Your task to perform on an android device: What's the news this month? Image 0: 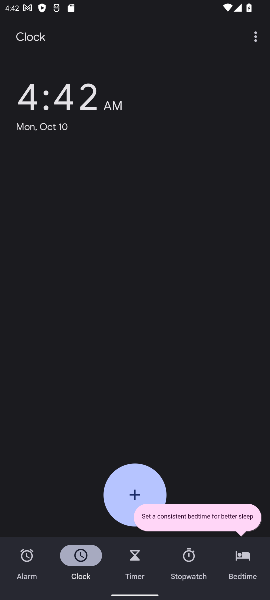
Step 0: press home button
Your task to perform on an android device: What's the news this month? Image 1: 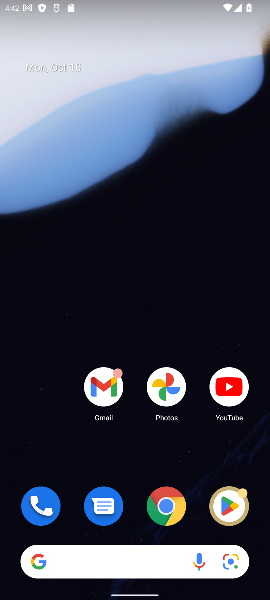
Step 1: drag from (145, 547) to (147, 176)
Your task to perform on an android device: What's the news this month? Image 2: 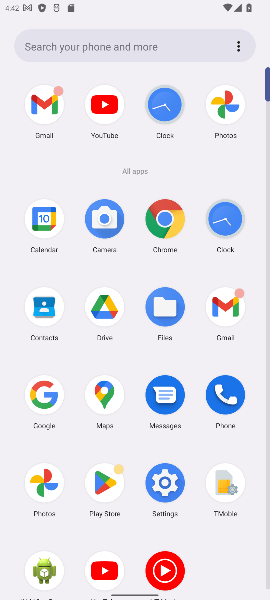
Step 2: click (47, 397)
Your task to perform on an android device: What's the news this month? Image 3: 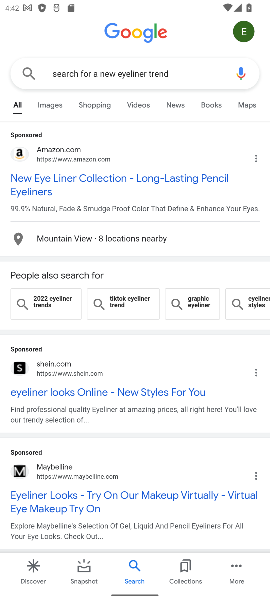
Step 3: click (163, 76)
Your task to perform on an android device: What's the news this month? Image 4: 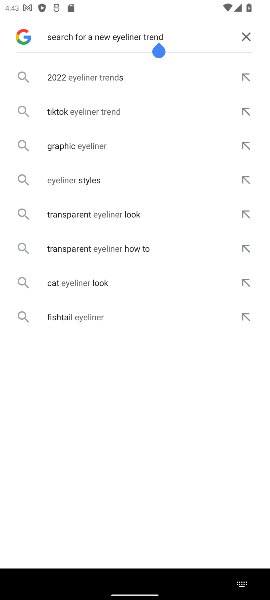
Step 4: click (247, 38)
Your task to perform on an android device: What's the news this month? Image 5: 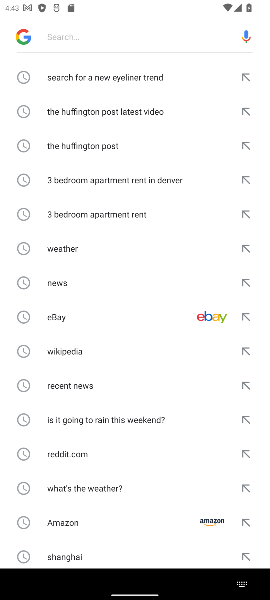
Step 5: type "What's the news this month?"
Your task to perform on an android device: What's the news this month? Image 6: 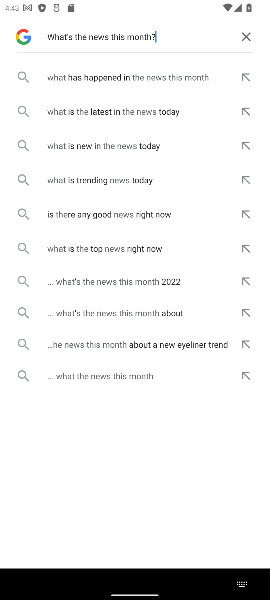
Step 6: click (168, 76)
Your task to perform on an android device: What's the news this month? Image 7: 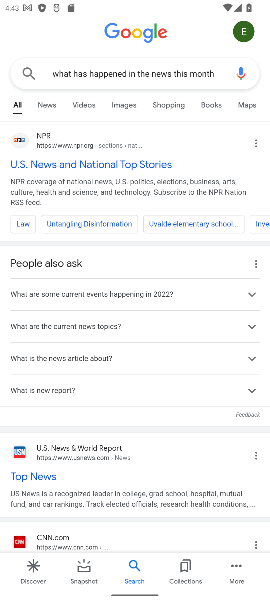
Step 7: click (119, 166)
Your task to perform on an android device: What's the news this month? Image 8: 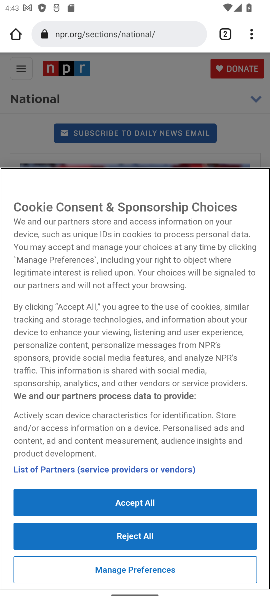
Step 8: task complete